Your task to perform on an android device: move a message to another label in the gmail app Image 0: 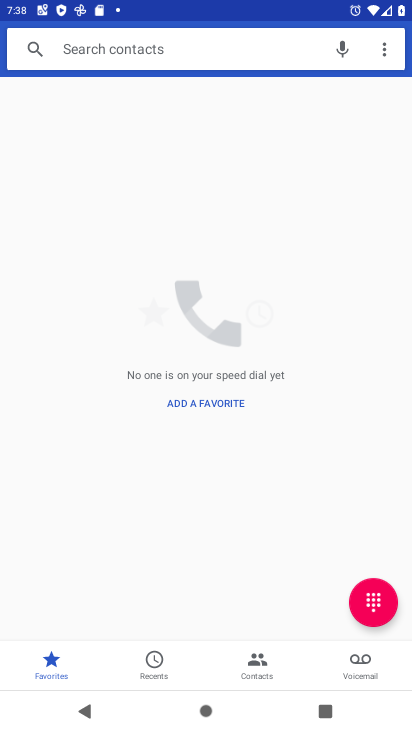
Step 0: press home button
Your task to perform on an android device: move a message to another label in the gmail app Image 1: 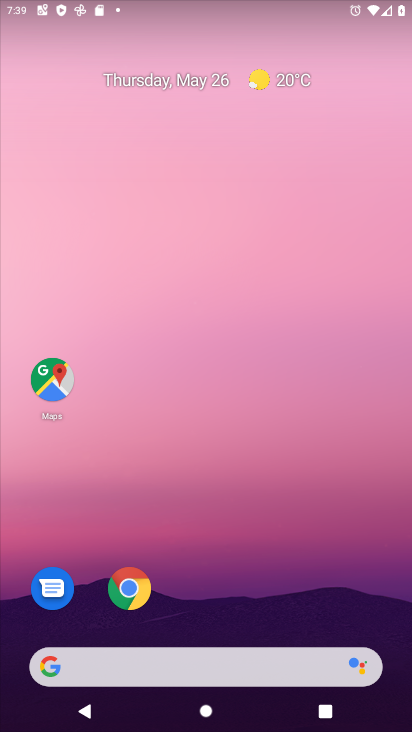
Step 1: drag from (395, 645) to (259, 32)
Your task to perform on an android device: move a message to another label in the gmail app Image 2: 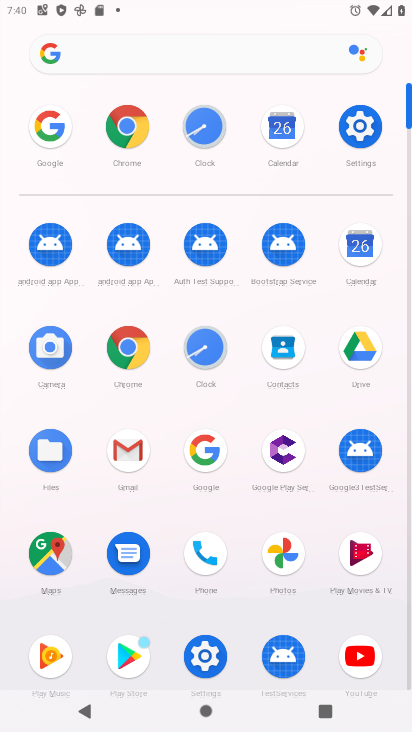
Step 2: click (146, 448)
Your task to perform on an android device: move a message to another label in the gmail app Image 3: 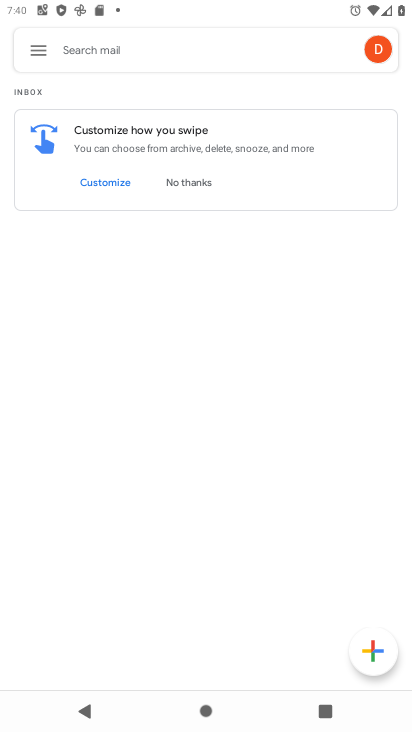
Step 3: task complete